Your task to perform on an android device: Open Google Chrome and open the bookmarks view Image 0: 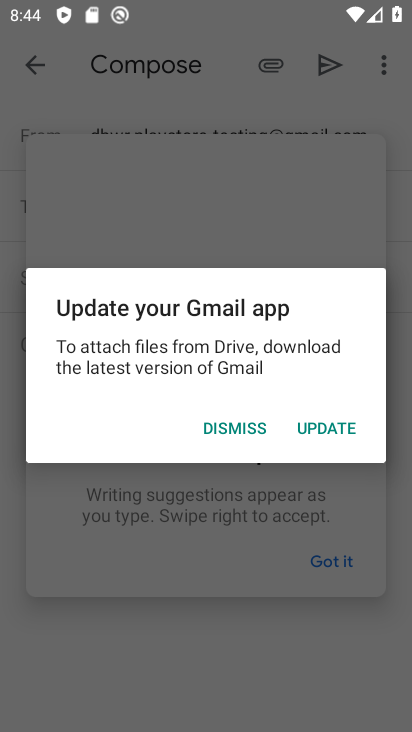
Step 0: press home button
Your task to perform on an android device: Open Google Chrome and open the bookmarks view Image 1: 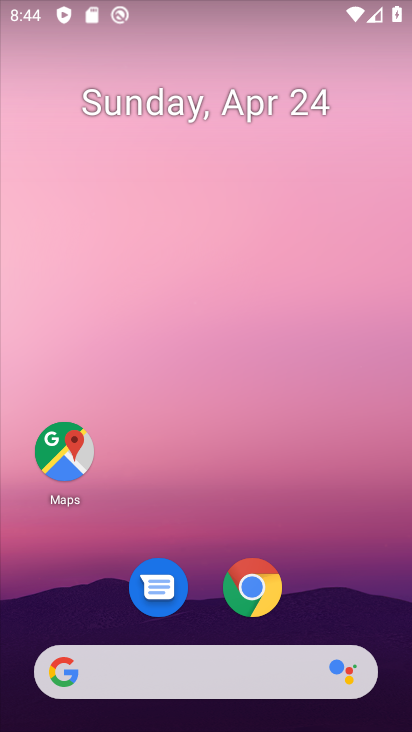
Step 1: drag from (377, 614) to (277, 139)
Your task to perform on an android device: Open Google Chrome and open the bookmarks view Image 2: 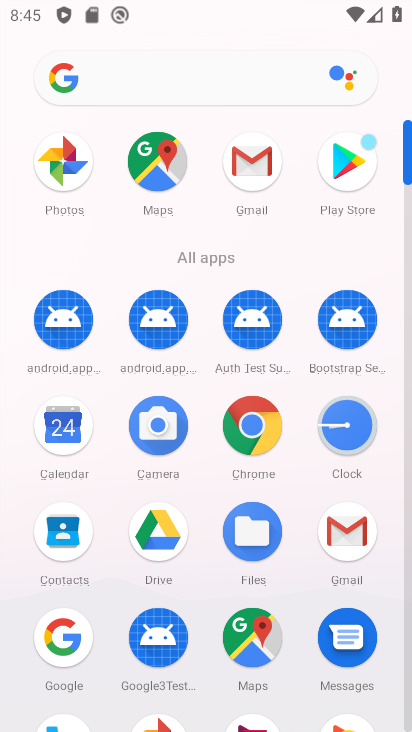
Step 2: click (249, 431)
Your task to perform on an android device: Open Google Chrome and open the bookmarks view Image 3: 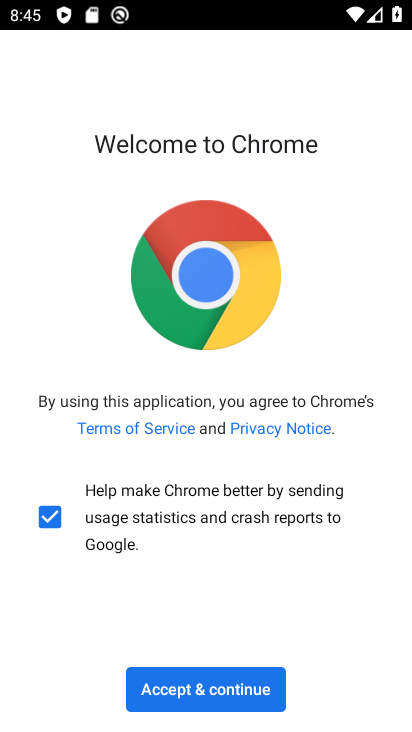
Step 3: click (250, 696)
Your task to perform on an android device: Open Google Chrome and open the bookmarks view Image 4: 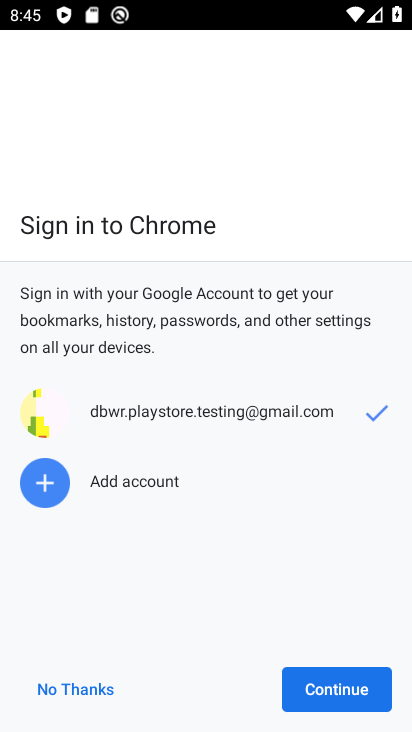
Step 4: click (335, 687)
Your task to perform on an android device: Open Google Chrome and open the bookmarks view Image 5: 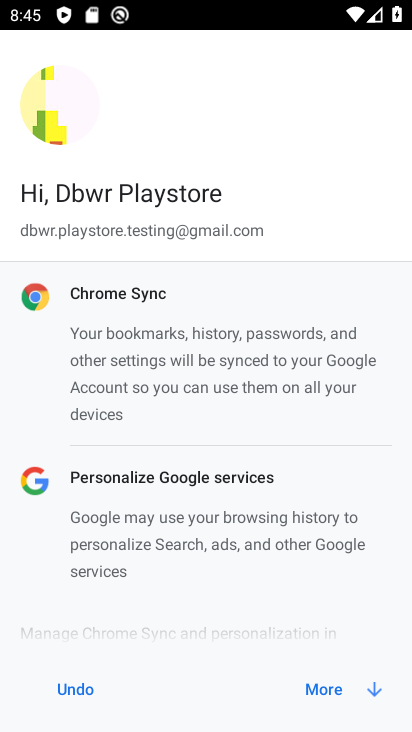
Step 5: click (335, 688)
Your task to perform on an android device: Open Google Chrome and open the bookmarks view Image 6: 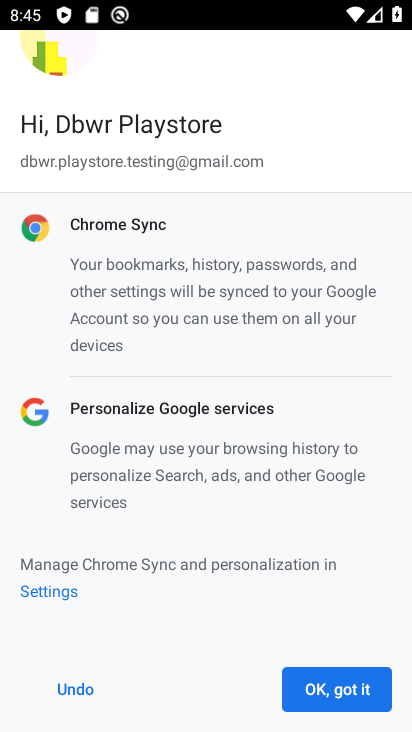
Step 6: click (335, 688)
Your task to perform on an android device: Open Google Chrome and open the bookmarks view Image 7: 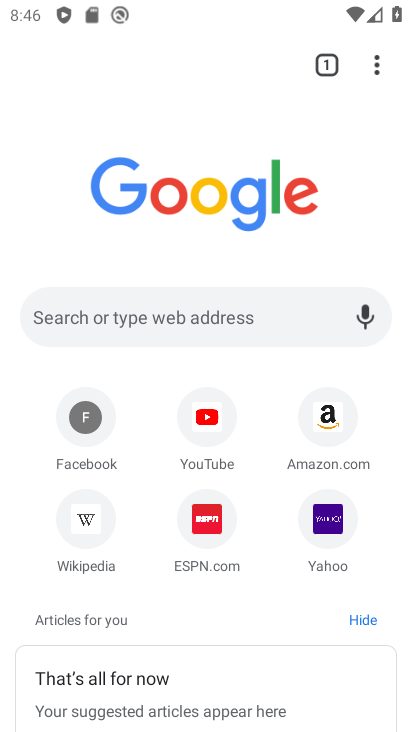
Step 7: click (376, 90)
Your task to perform on an android device: Open Google Chrome and open the bookmarks view Image 8: 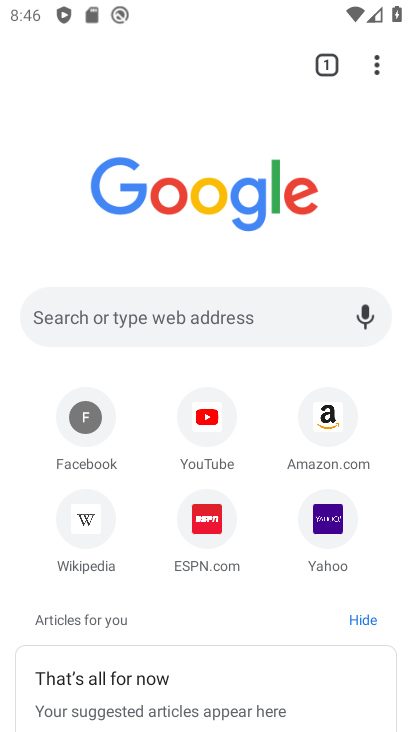
Step 8: task complete